Your task to perform on an android device: Open accessibility settings Image 0: 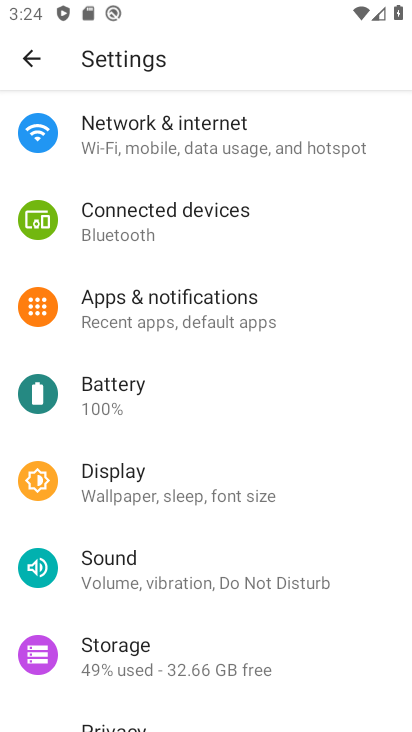
Step 0: drag from (212, 562) to (284, 96)
Your task to perform on an android device: Open accessibility settings Image 1: 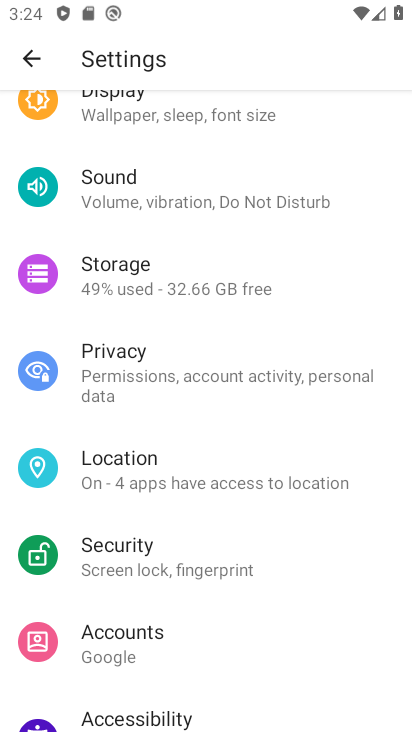
Step 1: drag from (157, 528) to (204, 199)
Your task to perform on an android device: Open accessibility settings Image 2: 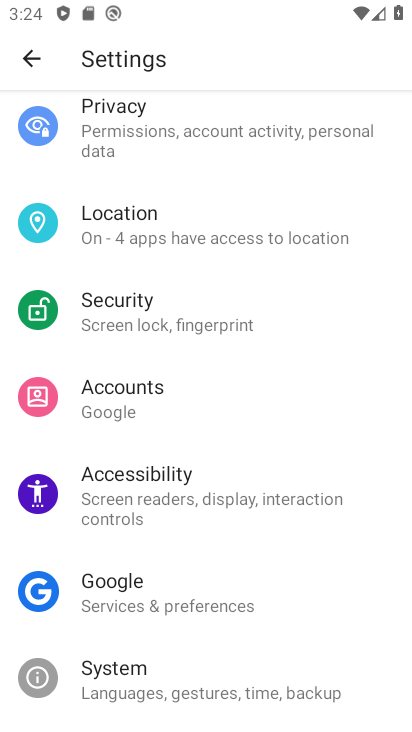
Step 2: click (172, 505)
Your task to perform on an android device: Open accessibility settings Image 3: 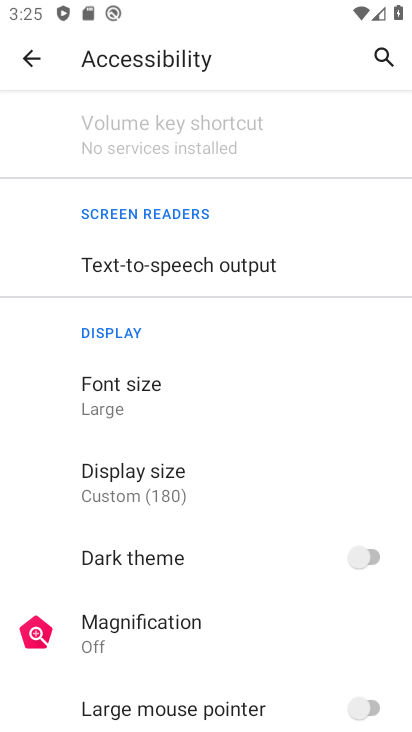
Step 3: task complete